Your task to perform on an android device: Open accessibility settings Image 0: 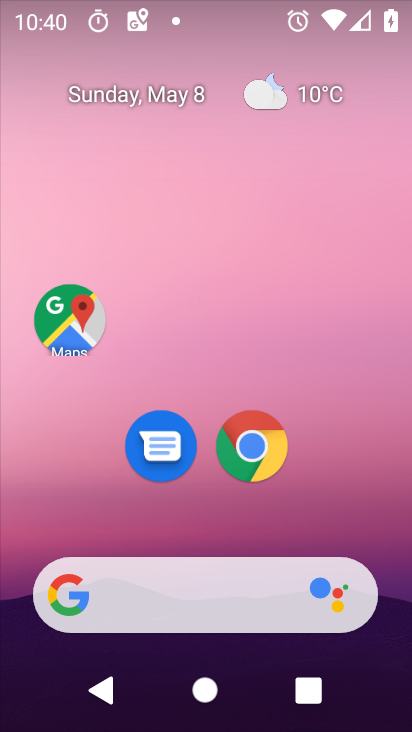
Step 0: drag from (367, 552) to (350, 16)
Your task to perform on an android device: Open accessibility settings Image 1: 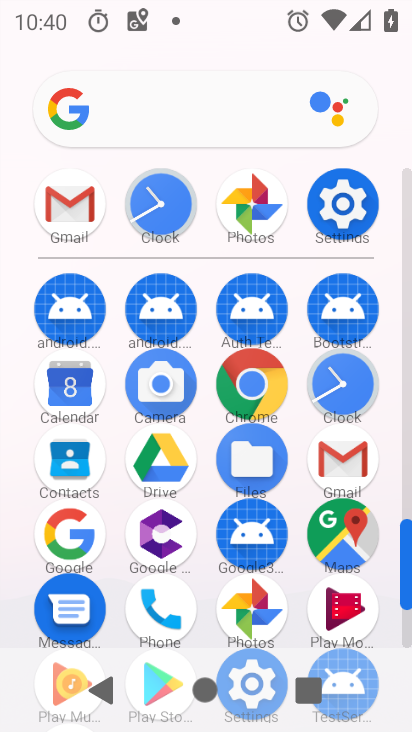
Step 1: click (350, 208)
Your task to perform on an android device: Open accessibility settings Image 2: 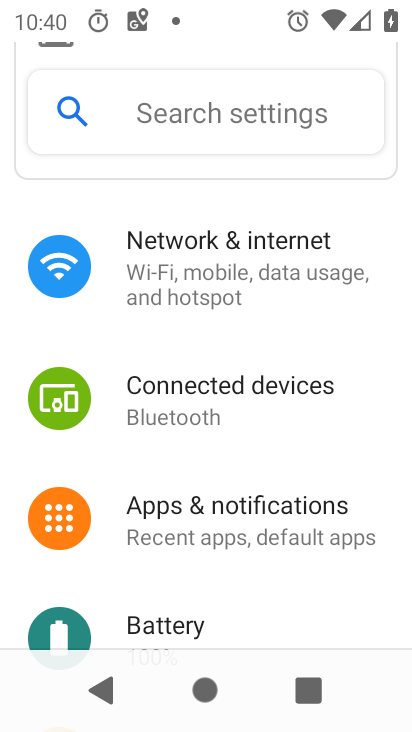
Step 2: drag from (397, 515) to (391, 116)
Your task to perform on an android device: Open accessibility settings Image 3: 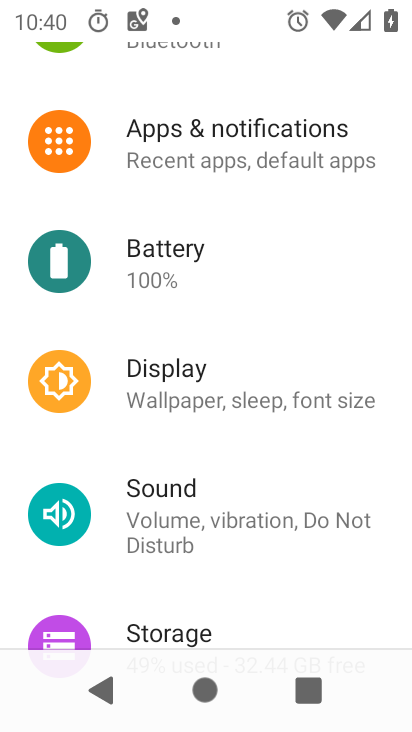
Step 3: drag from (372, 506) to (388, 99)
Your task to perform on an android device: Open accessibility settings Image 4: 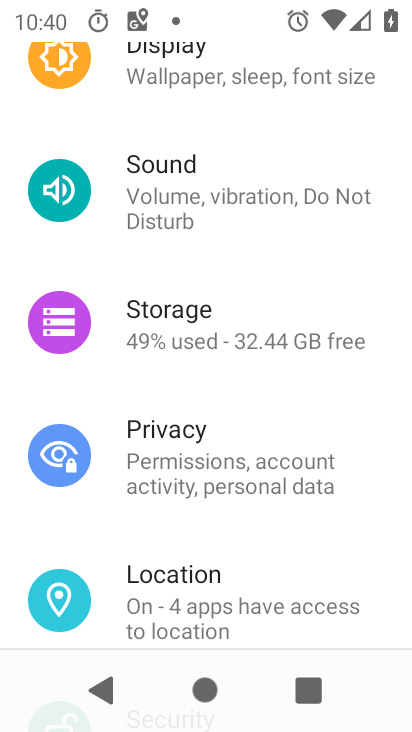
Step 4: drag from (349, 460) to (354, 74)
Your task to perform on an android device: Open accessibility settings Image 5: 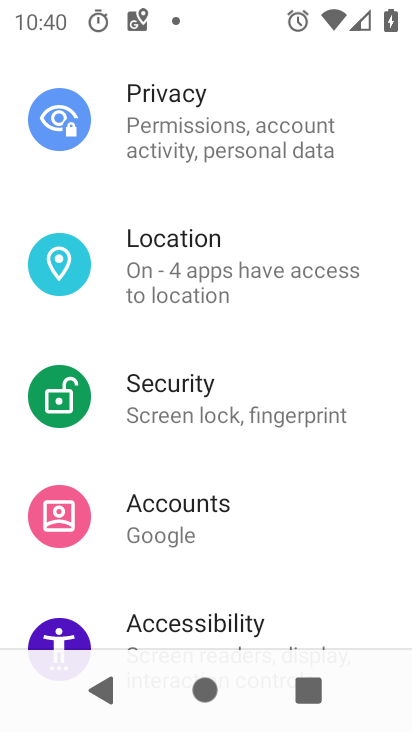
Step 5: drag from (330, 486) to (338, 122)
Your task to perform on an android device: Open accessibility settings Image 6: 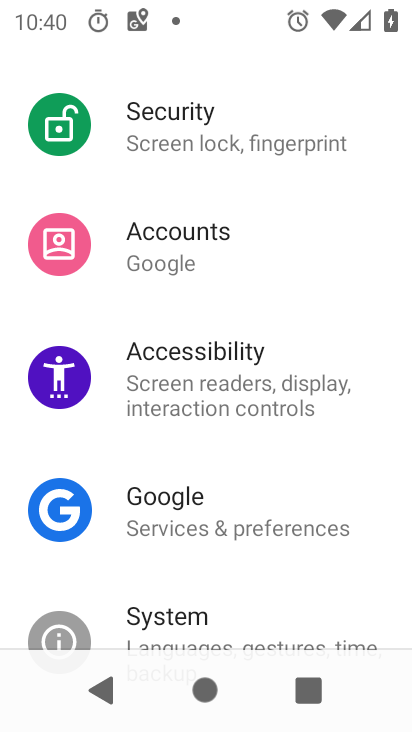
Step 6: click (189, 369)
Your task to perform on an android device: Open accessibility settings Image 7: 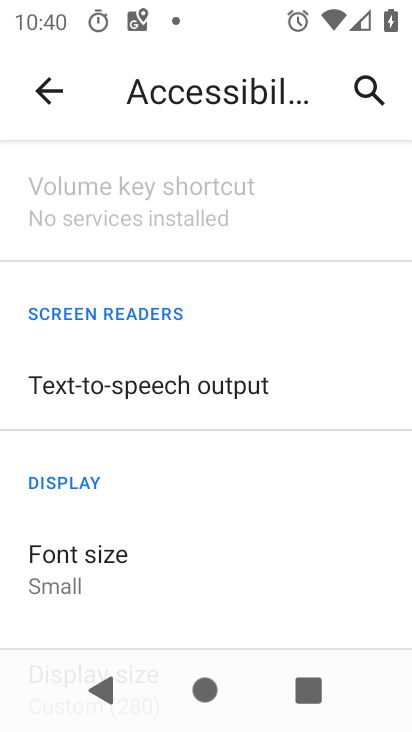
Step 7: task complete